Your task to perform on an android device: Open Yahoo.com Image 0: 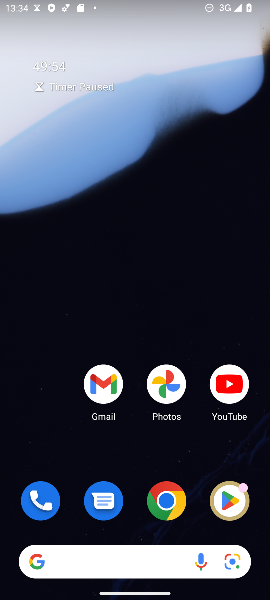
Step 0: click (153, 499)
Your task to perform on an android device: Open Yahoo.com Image 1: 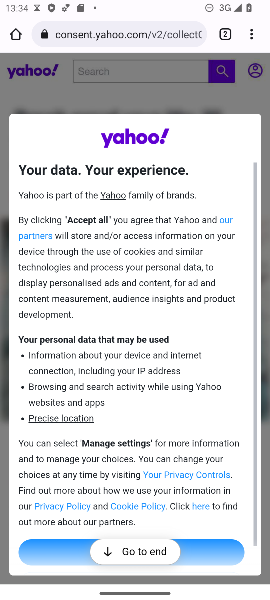
Step 1: task complete